Your task to perform on an android device: clear history in the chrome app Image 0: 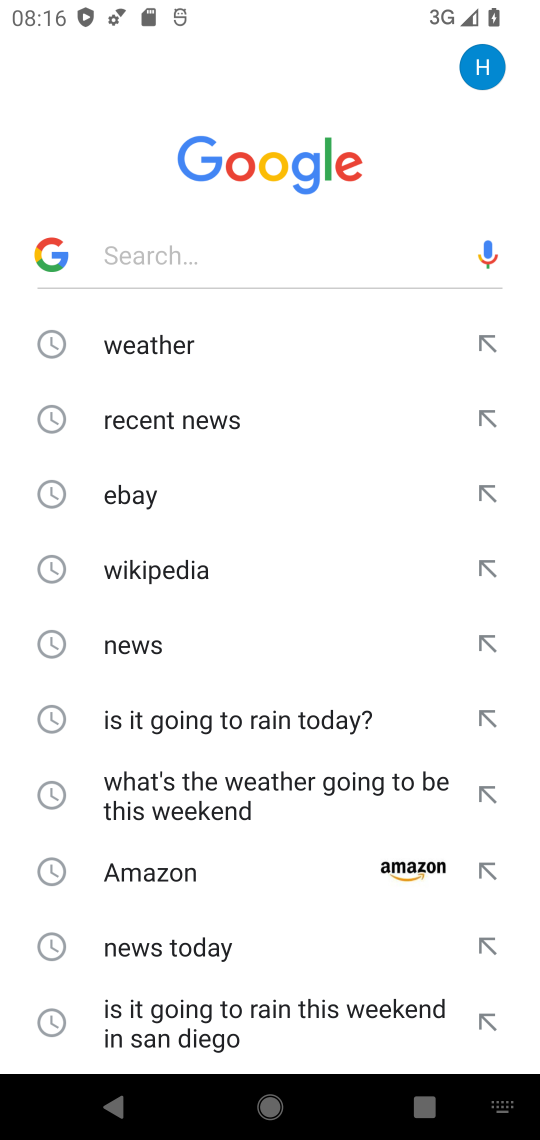
Step 0: press home button
Your task to perform on an android device: clear history in the chrome app Image 1: 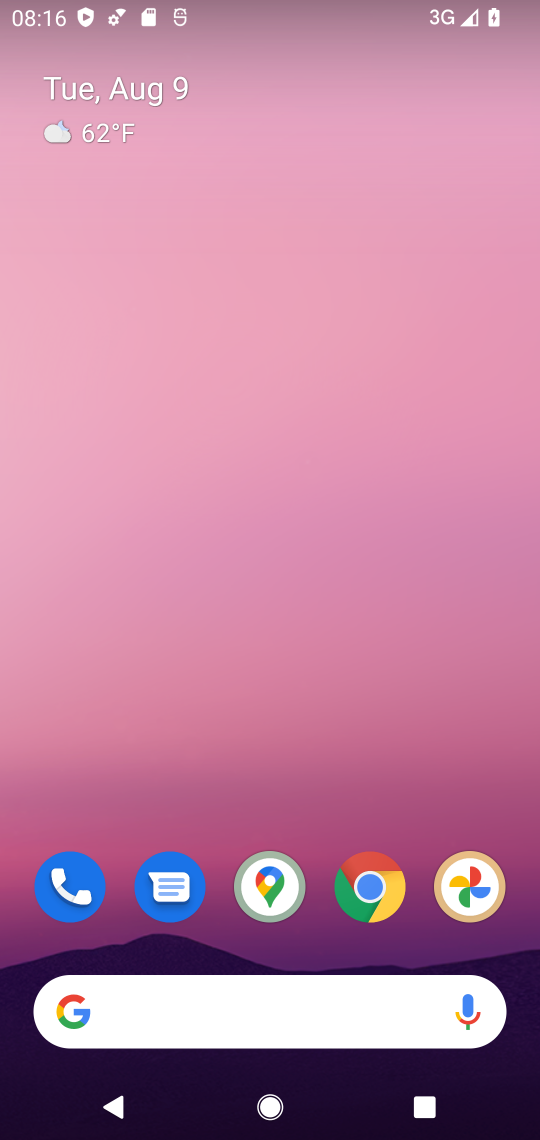
Step 1: click (383, 883)
Your task to perform on an android device: clear history in the chrome app Image 2: 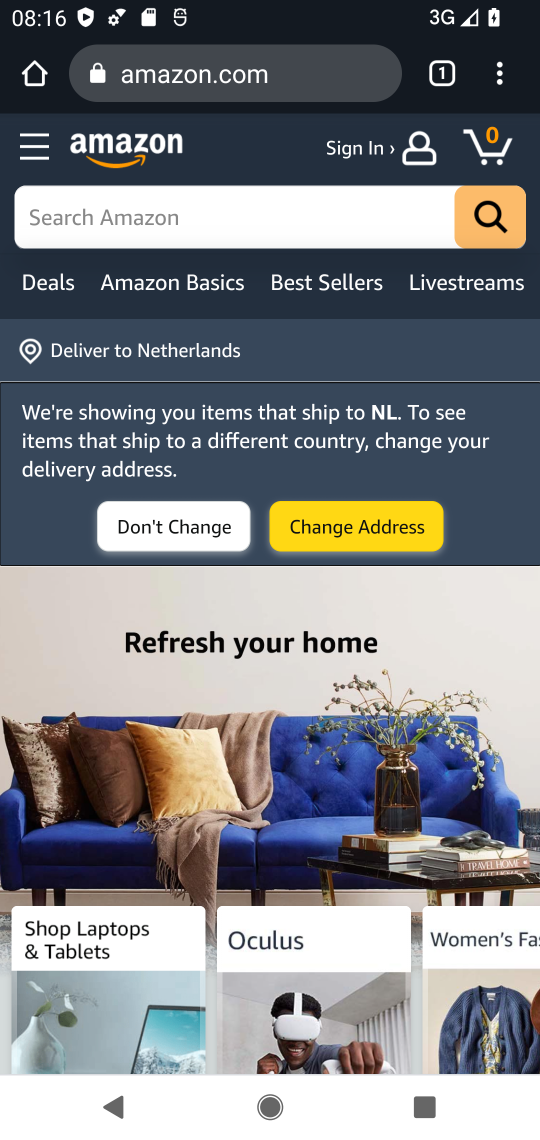
Step 2: press back button
Your task to perform on an android device: clear history in the chrome app Image 3: 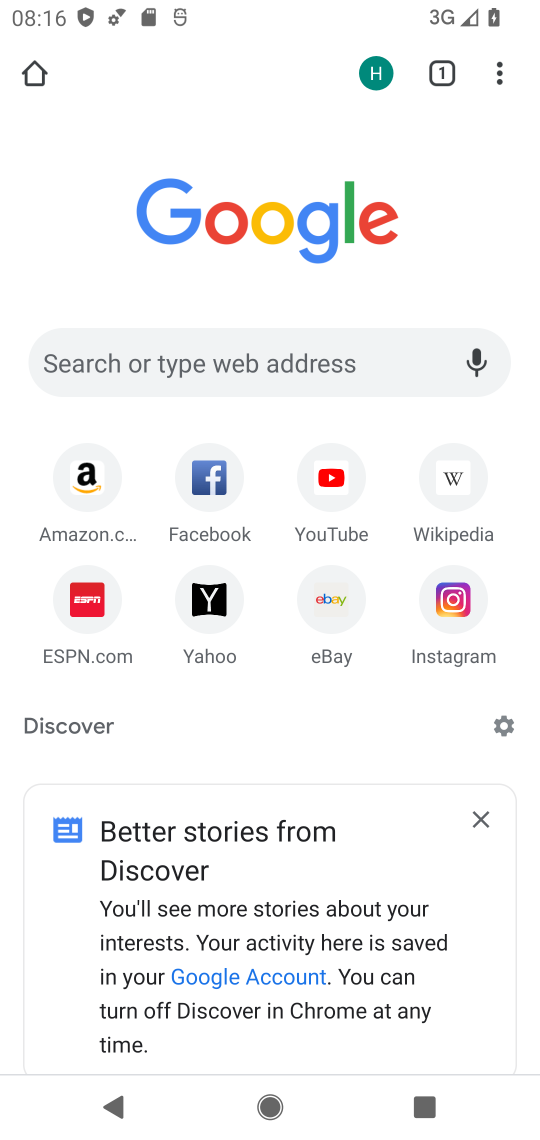
Step 3: click (494, 71)
Your task to perform on an android device: clear history in the chrome app Image 4: 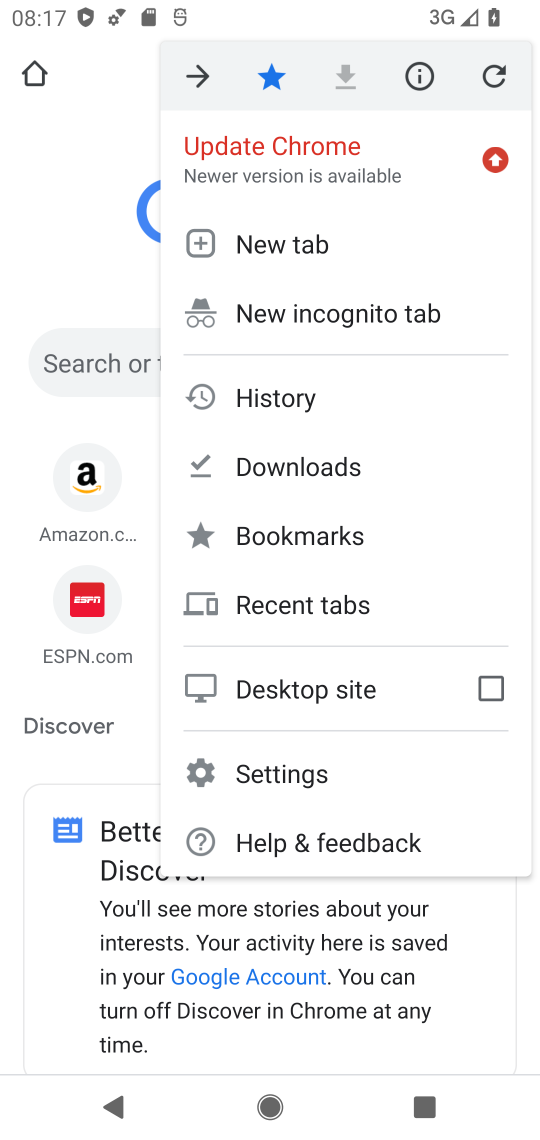
Step 4: click (285, 394)
Your task to perform on an android device: clear history in the chrome app Image 5: 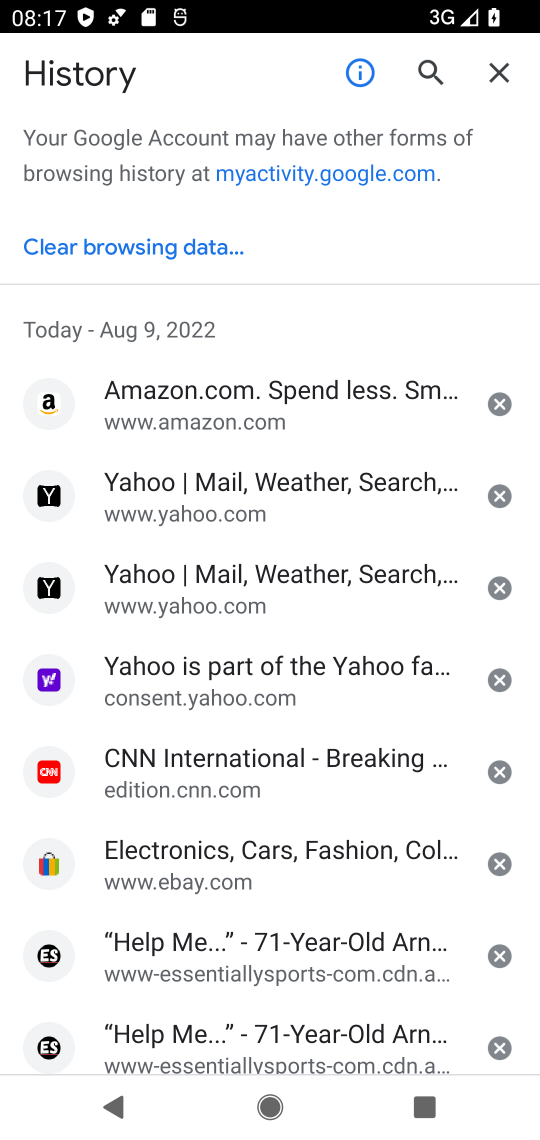
Step 5: click (211, 245)
Your task to perform on an android device: clear history in the chrome app Image 6: 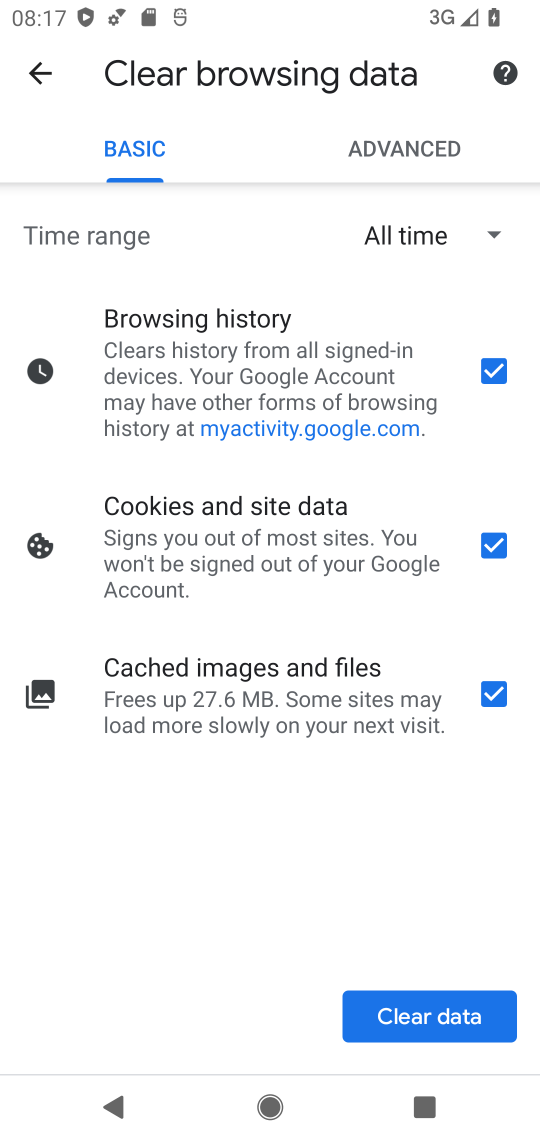
Step 6: click (435, 1019)
Your task to perform on an android device: clear history in the chrome app Image 7: 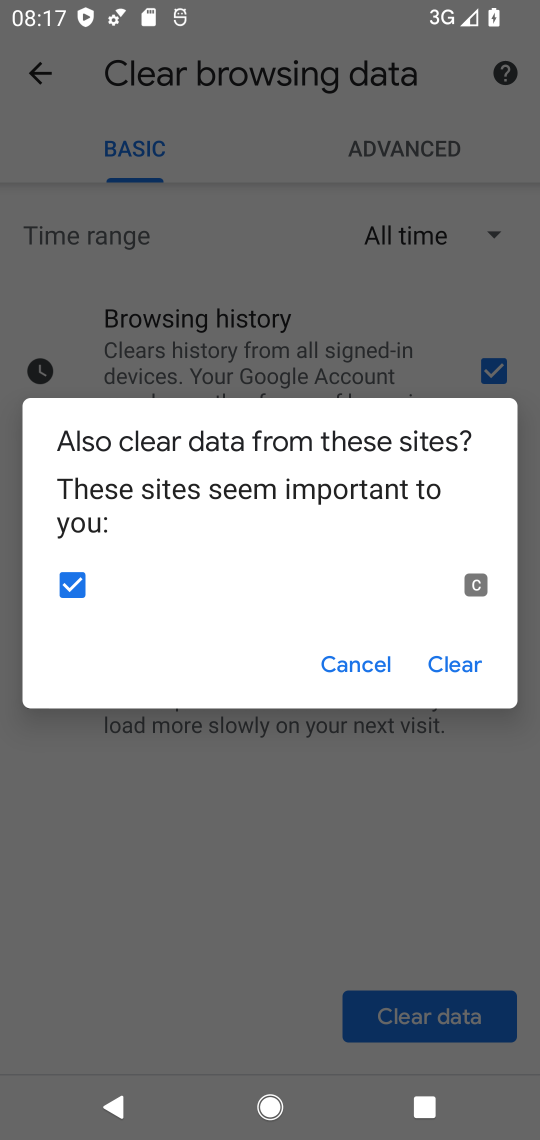
Step 7: click (457, 657)
Your task to perform on an android device: clear history in the chrome app Image 8: 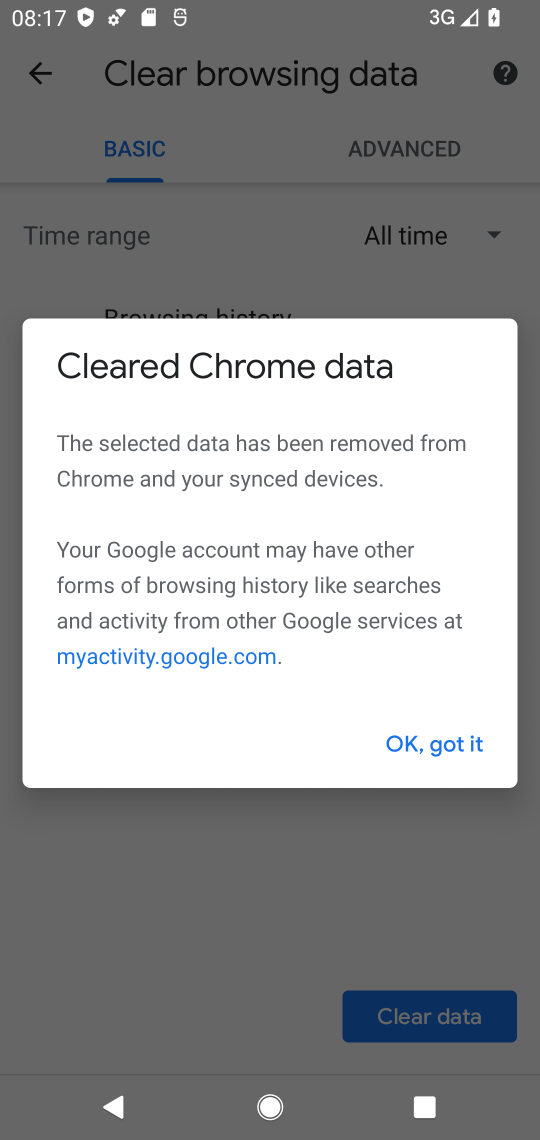
Step 8: click (461, 742)
Your task to perform on an android device: clear history in the chrome app Image 9: 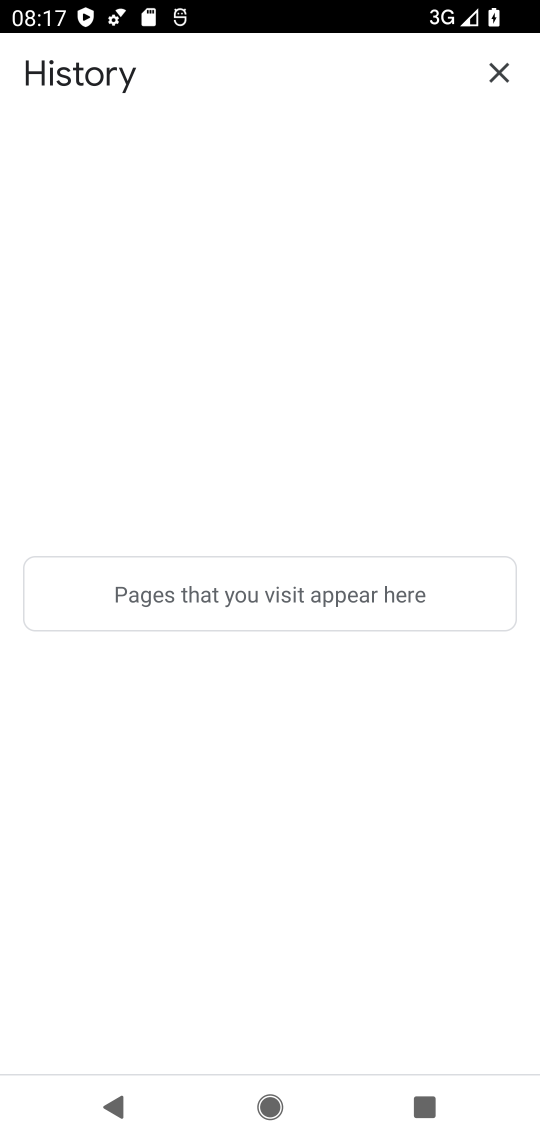
Step 9: task complete